Your task to perform on an android device: show emergency info Image 0: 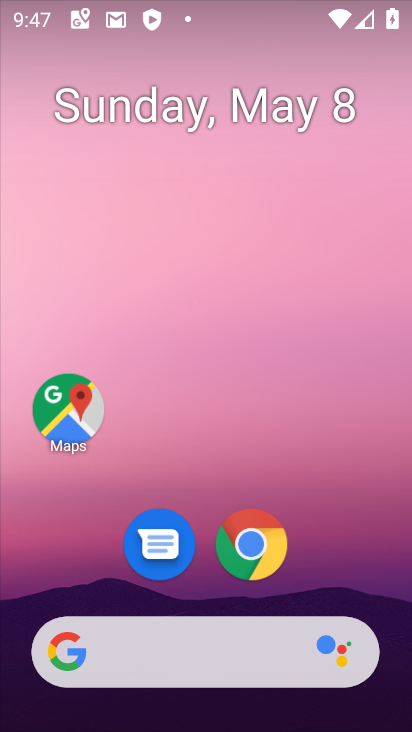
Step 0: drag from (367, 575) to (311, 31)
Your task to perform on an android device: show emergency info Image 1: 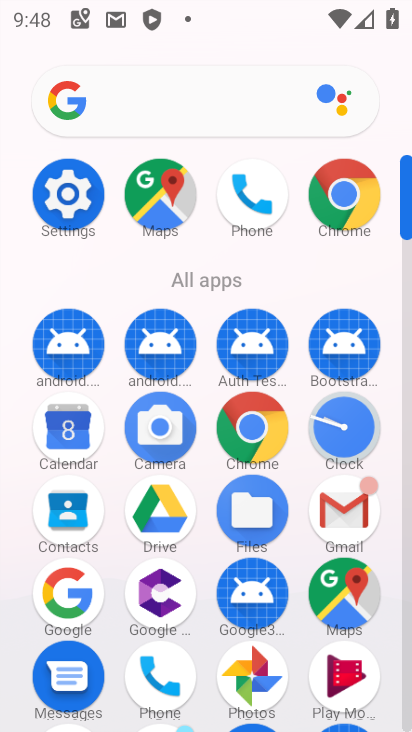
Step 1: click (408, 729)
Your task to perform on an android device: show emergency info Image 2: 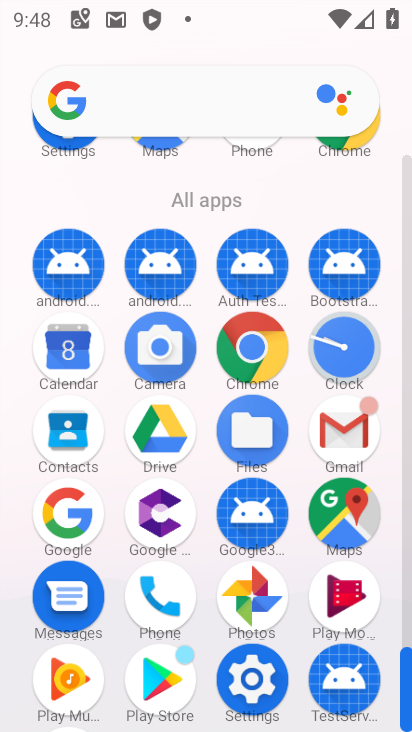
Step 2: click (263, 688)
Your task to perform on an android device: show emergency info Image 3: 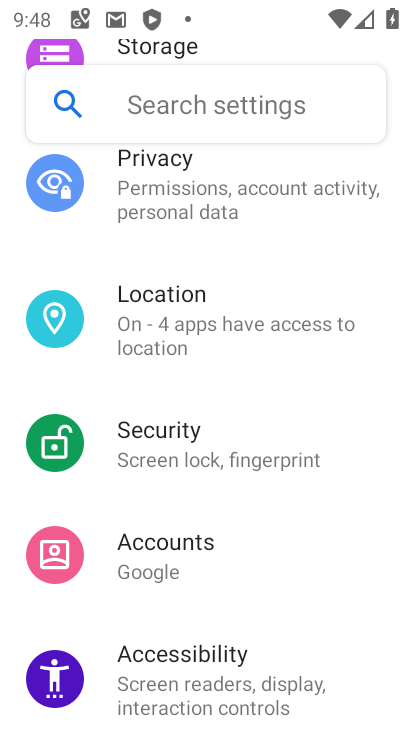
Step 3: drag from (263, 688) to (210, 438)
Your task to perform on an android device: show emergency info Image 4: 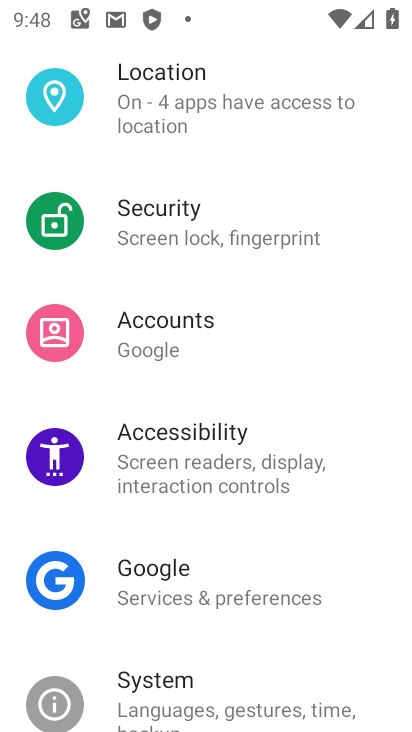
Step 4: drag from (213, 653) to (189, 366)
Your task to perform on an android device: show emergency info Image 5: 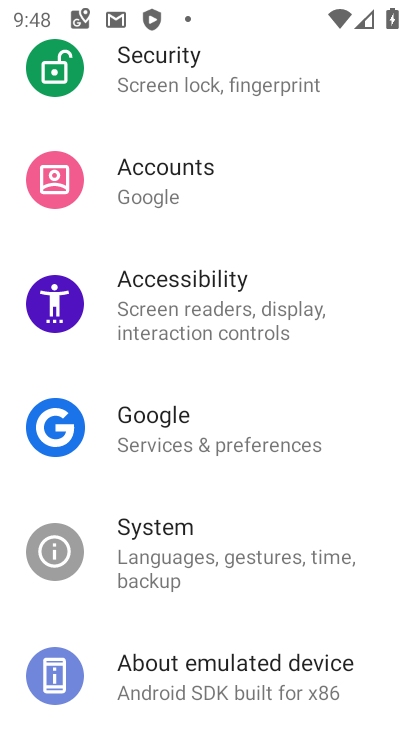
Step 5: click (234, 684)
Your task to perform on an android device: show emergency info Image 6: 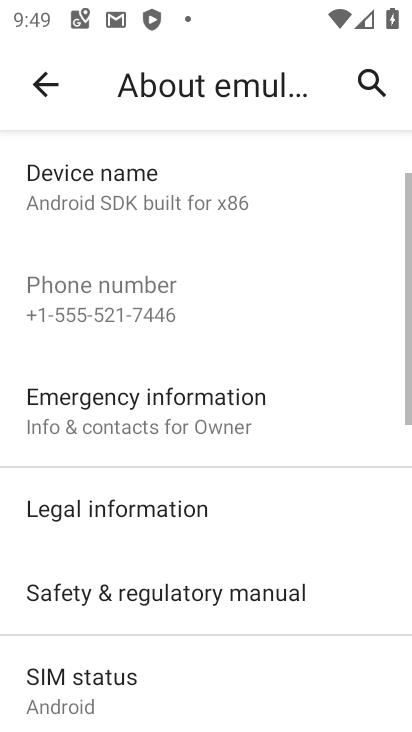
Step 6: click (131, 395)
Your task to perform on an android device: show emergency info Image 7: 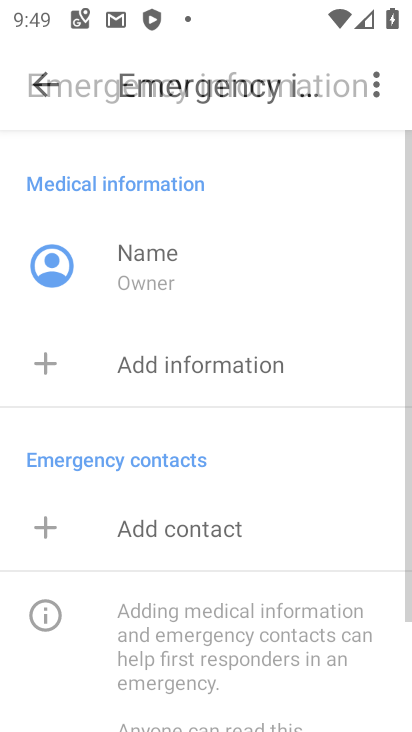
Step 7: task complete